Your task to perform on an android device: turn off javascript in the chrome app Image 0: 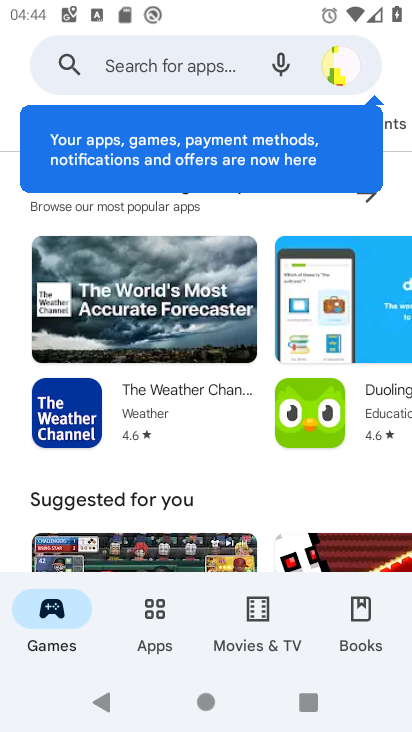
Step 0: press home button
Your task to perform on an android device: turn off javascript in the chrome app Image 1: 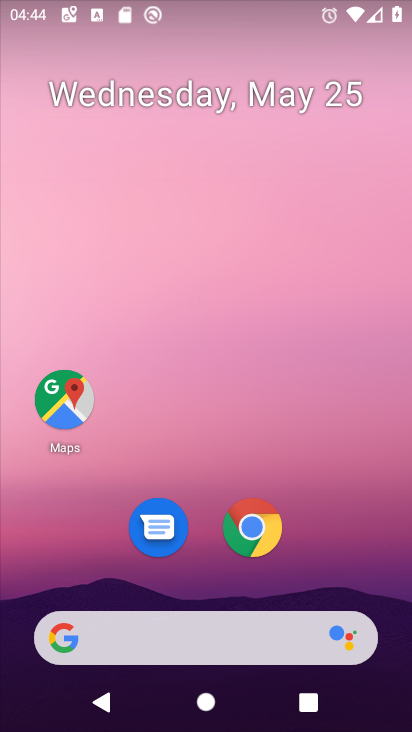
Step 1: drag from (219, 483) to (225, 174)
Your task to perform on an android device: turn off javascript in the chrome app Image 2: 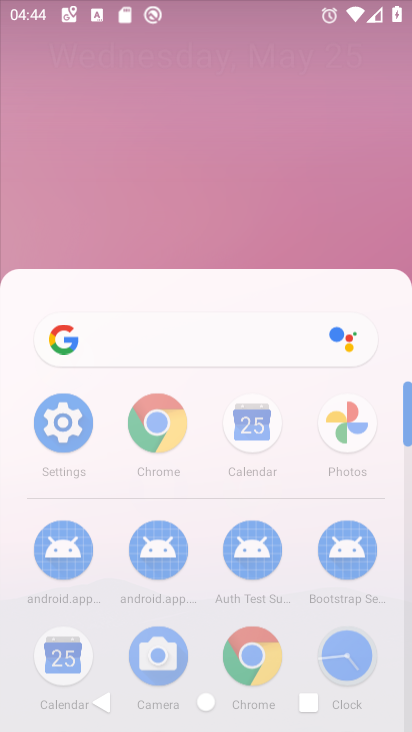
Step 2: click (215, 145)
Your task to perform on an android device: turn off javascript in the chrome app Image 3: 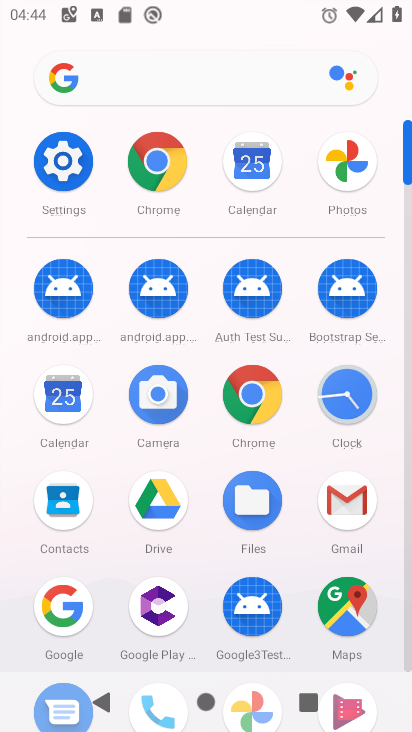
Step 3: click (58, 185)
Your task to perform on an android device: turn off javascript in the chrome app Image 4: 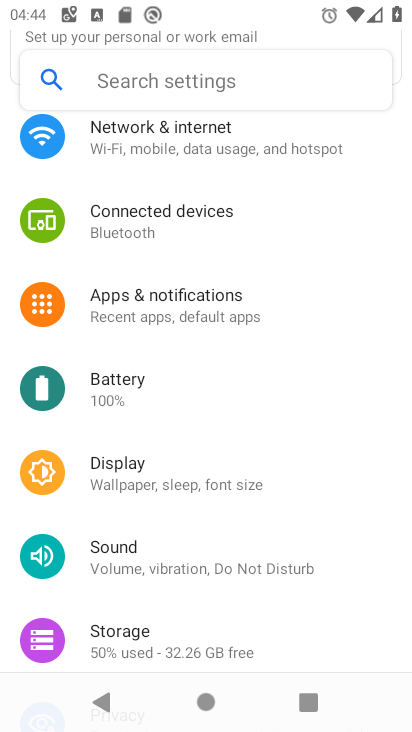
Step 4: press home button
Your task to perform on an android device: turn off javascript in the chrome app Image 5: 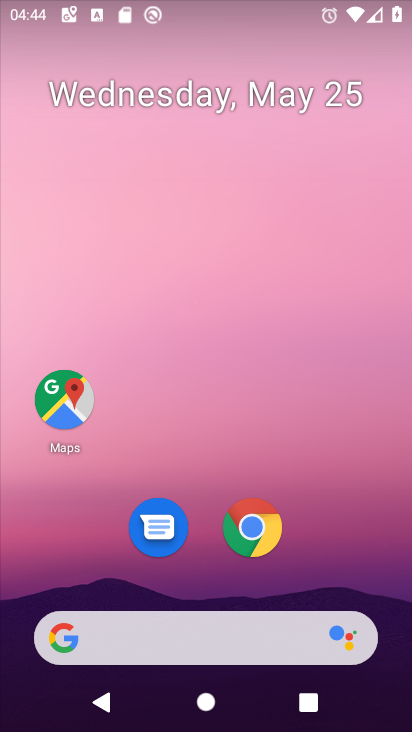
Step 5: drag from (291, 492) to (326, 1)
Your task to perform on an android device: turn off javascript in the chrome app Image 6: 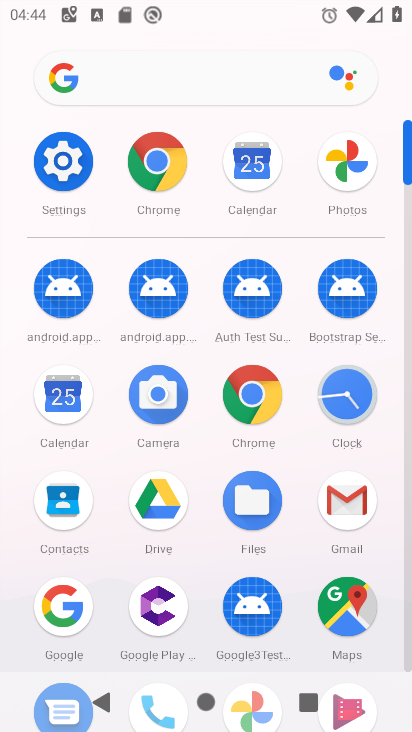
Step 6: click (160, 173)
Your task to perform on an android device: turn off javascript in the chrome app Image 7: 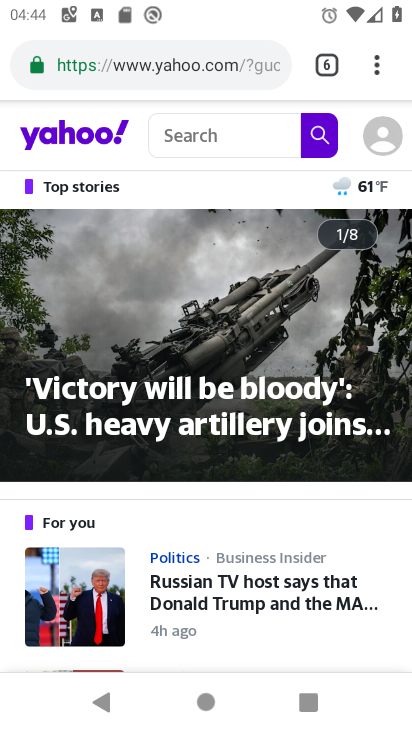
Step 7: click (372, 72)
Your task to perform on an android device: turn off javascript in the chrome app Image 8: 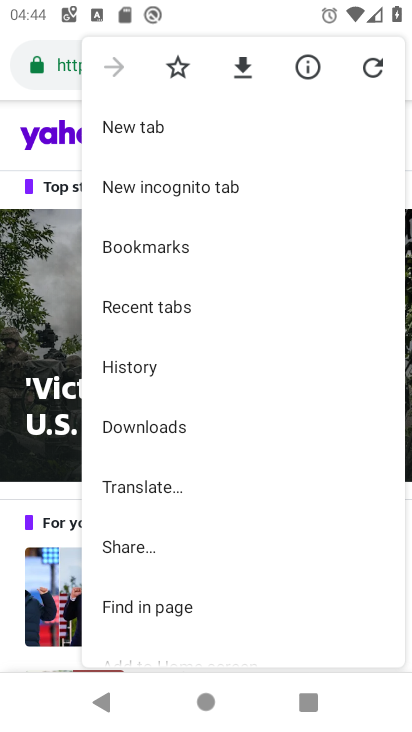
Step 8: drag from (246, 478) to (285, 190)
Your task to perform on an android device: turn off javascript in the chrome app Image 9: 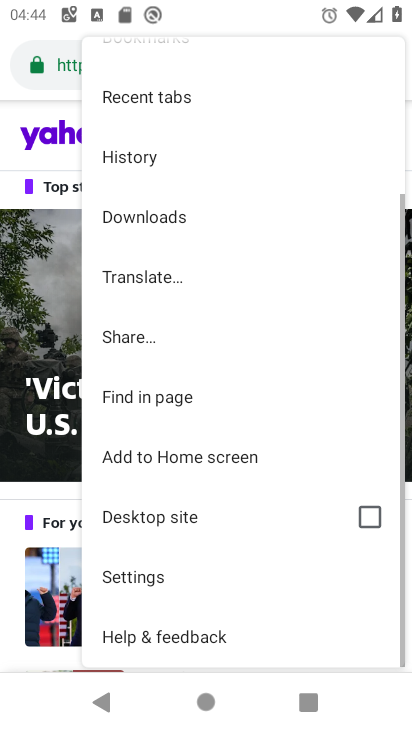
Step 9: click (146, 580)
Your task to perform on an android device: turn off javascript in the chrome app Image 10: 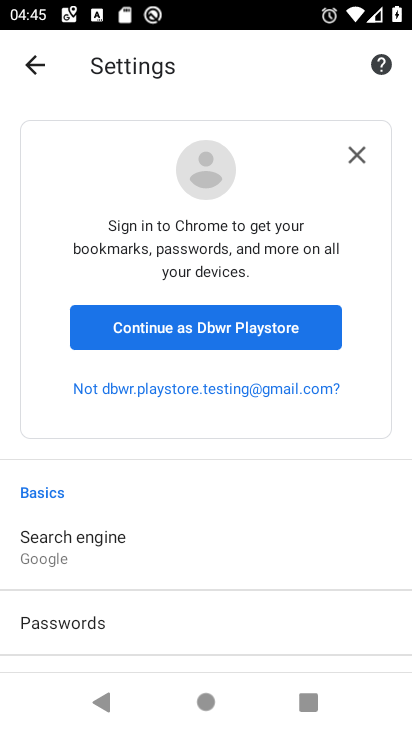
Step 10: drag from (255, 539) to (303, 177)
Your task to perform on an android device: turn off javascript in the chrome app Image 11: 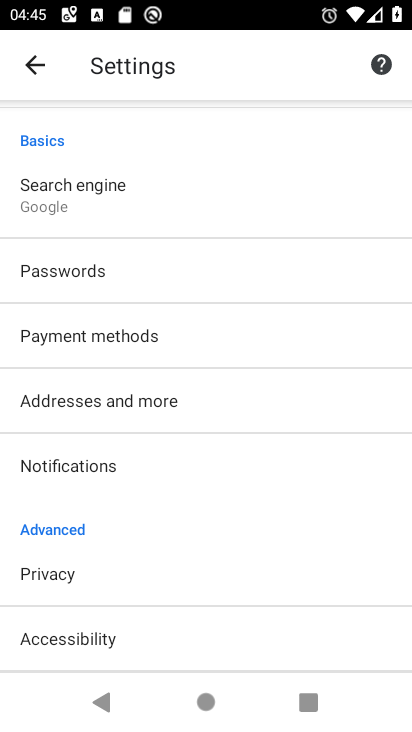
Step 11: drag from (253, 554) to (286, 214)
Your task to perform on an android device: turn off javascript in the chrome app Image 12: 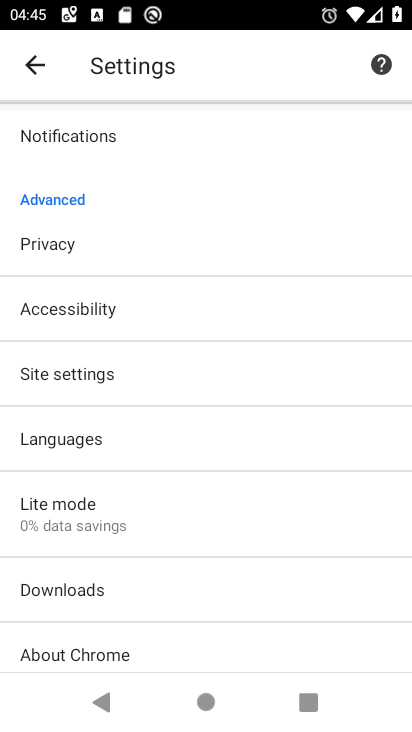
Step 12: click (140, 375)
Your task to perform on an android device: turn off javascript in the chrome app Image 13: 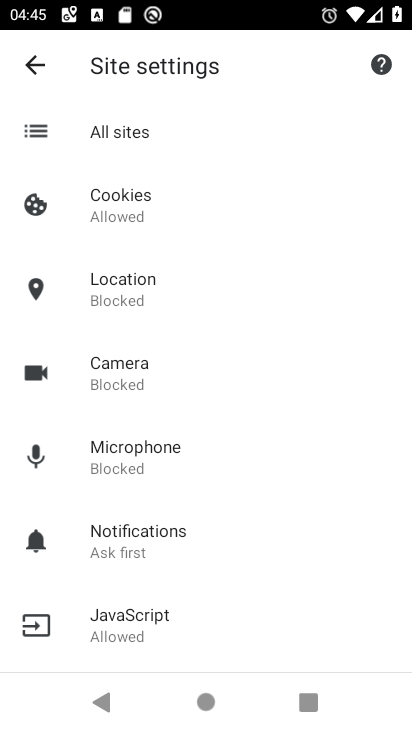
Step 13: click (157, 618)
Your task to perform on an android device: turn off javascript in the chrome app Image 14: 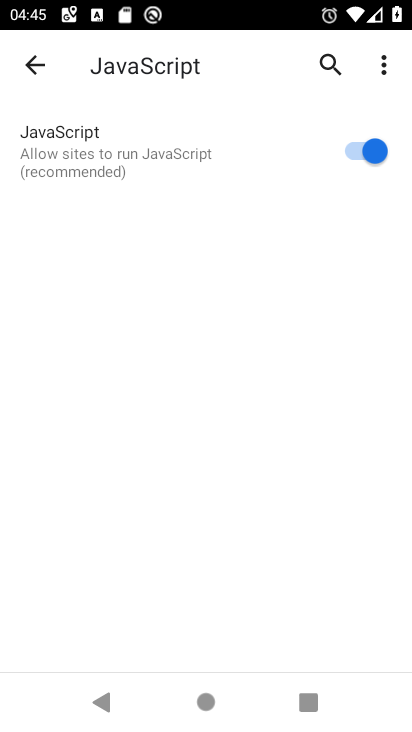
Step 14: click (380, 145)
Your task to perform on an android device: turn off javascript in the chrome app Image 15: 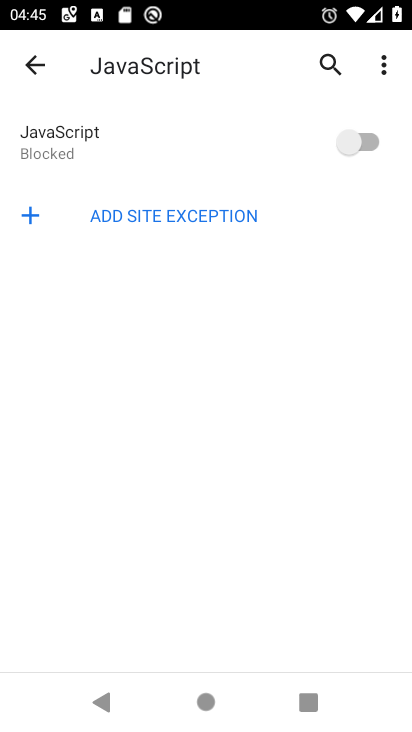
Step 15: task complete